Your task to perform on an android device: toggle improve location accuracy Image 0: 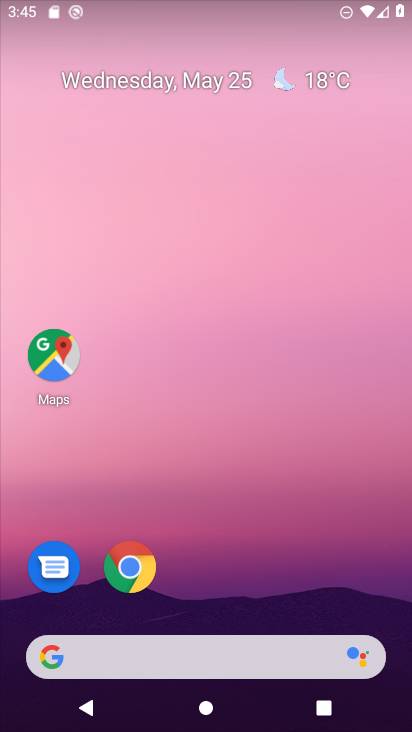
Step 0: drag from (386, 593) to (400, 240)
Your task to perform on an android device: toggle improve location accuracy Image 1: 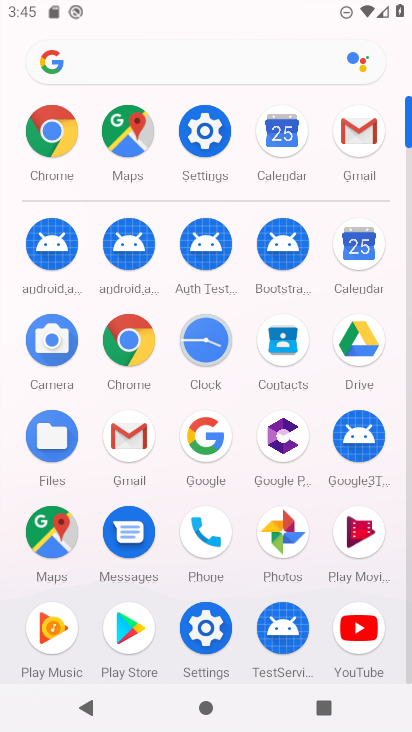
Step 1: click (202, 630)
Your task to perform on an android device: toggle improve location accuracy Image 2: 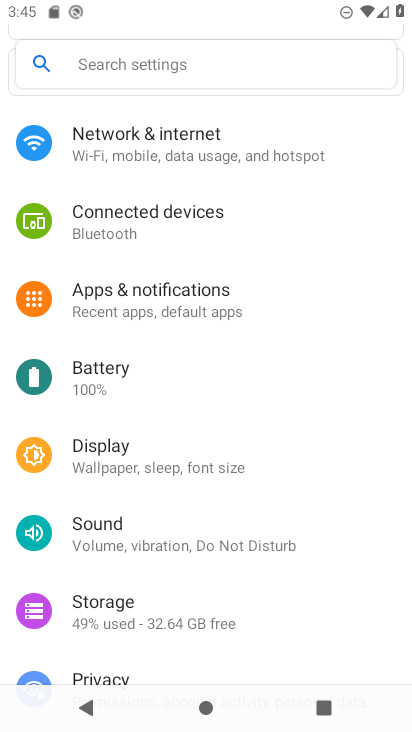
Step 2: drag from (333, 615) to (347, 504)
Your task to perform on an android device: toggle improve location accuracy Image 3: 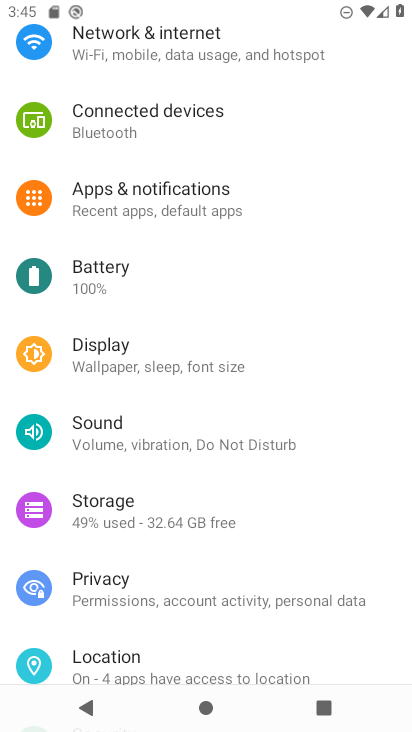
Step 3: drag from (352, 649) to (370, 524)
Your task to perform on an android device: toggle improve location accuracy Image 4: 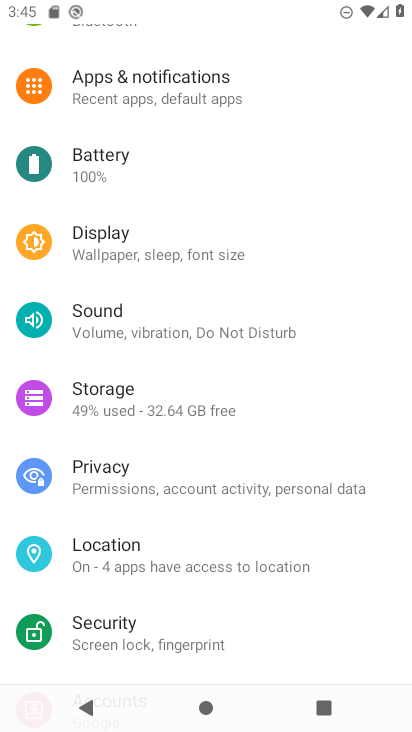
Step 4: drag from (351, 615) to (344, 542)
Your task to perform on an android device: toggle improve location accuracy Image 5: 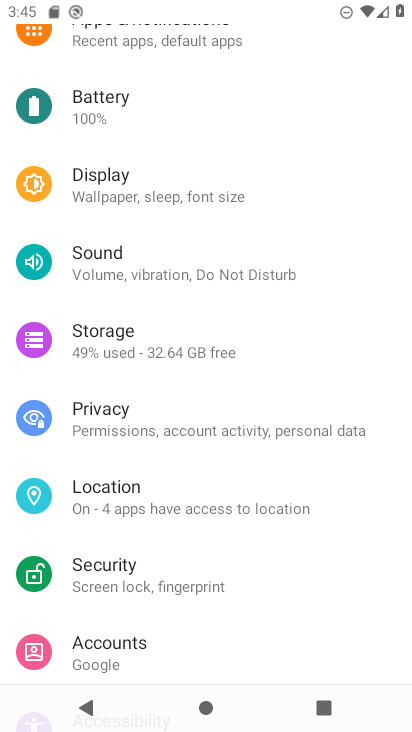
Step 5: drag from (351, 601) to (365, 502)
Your task to perform on an android device: toggle improve location accuracy Image 6: 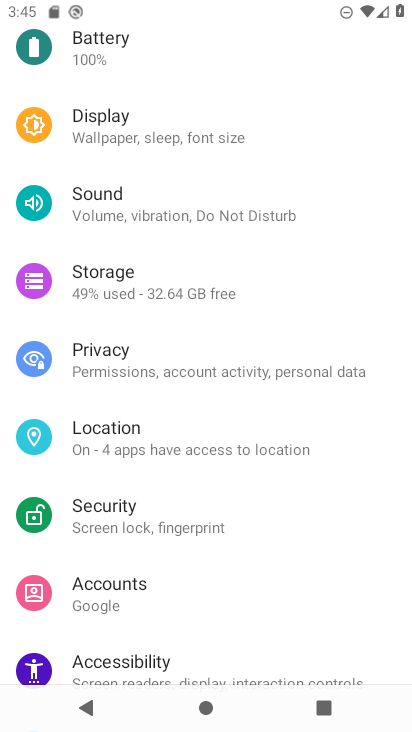
Step 6: drag from (363, 621) to (372, 498)
Your task to perform on an android device: toggle improve location accuracy Image 7: 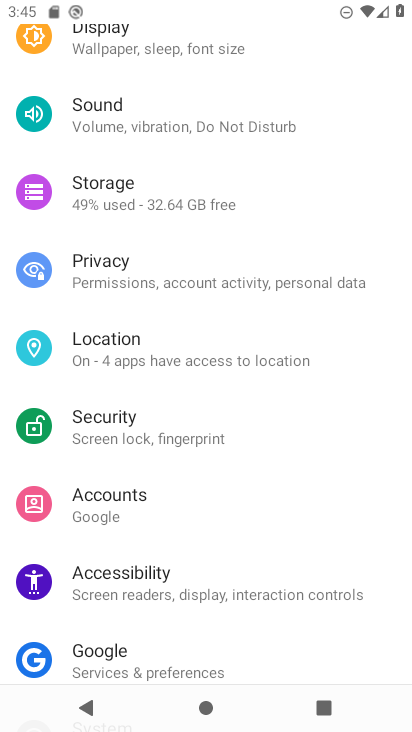
Step 7: drag from (360, 636) to (362, 518)
Your task to perform on an android device: toggle improve location accuracy Image 8: 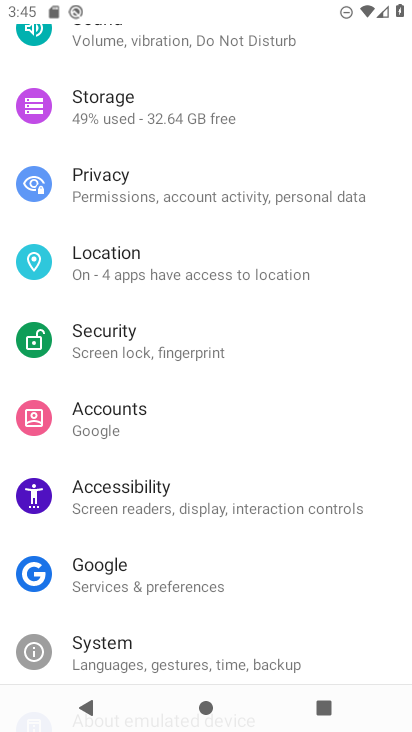
Step 8: drag from (344, 602) to (347, 484)
Your task to perform on an android device: toggle improve location accuracy Image 9: 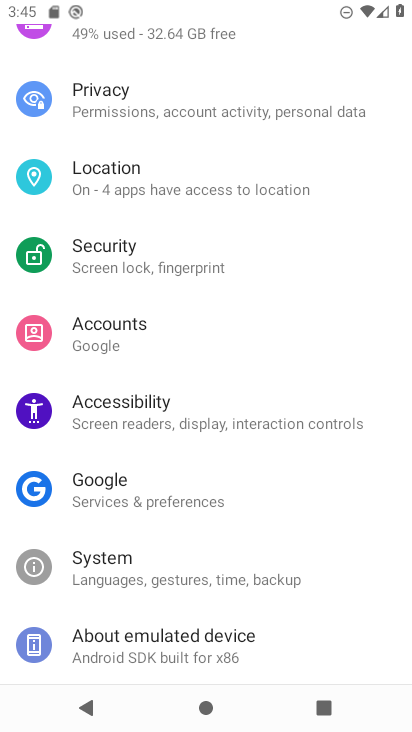
Step 9: drag from (349, 353) to (350, 482)
Your task to perform on an android device: toggle improve location accuracy Image 10: 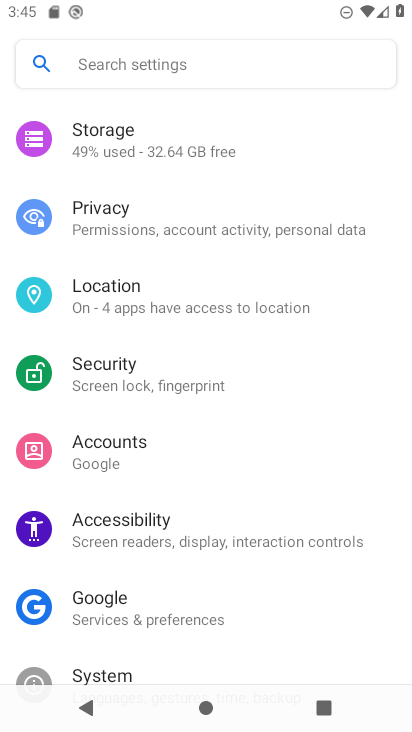
Step 10: drag from (346, 360) to (363, 495)
Your task to perform on an android device: toggle improve location accuracy Image 11: 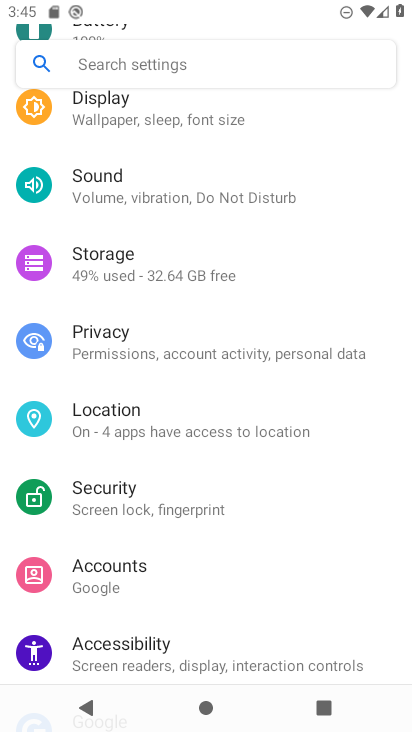
Step 11: click (324, 414)
Your task to perform on an android device: toggle improve location accuracy Image 12: 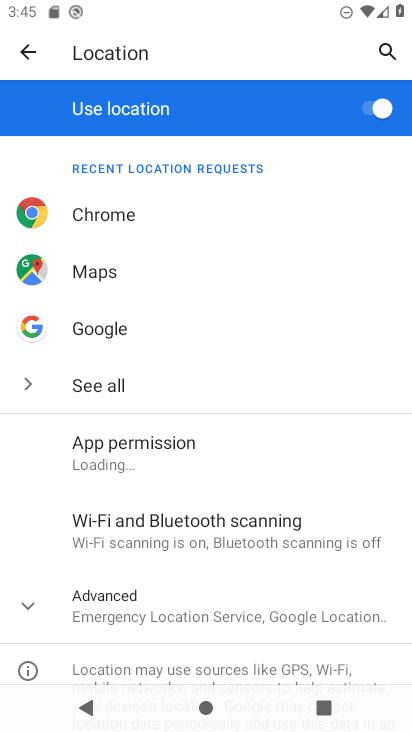
Step 12: click (259, 614)
Your task to perform on an android device: toggle improve location accuracy Image 13: 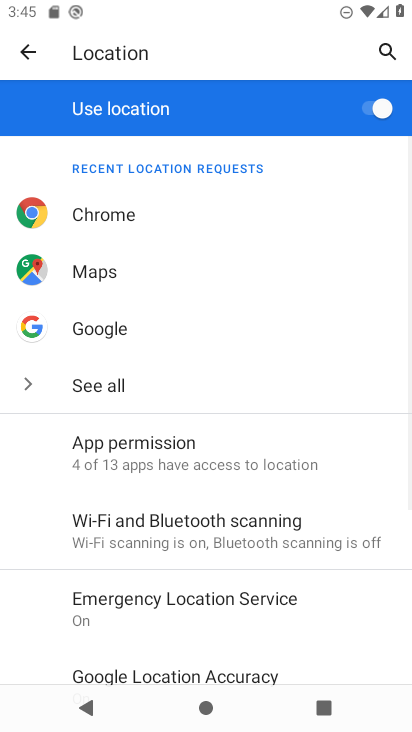
Step 13: drag from (263, 629) to (257, 568)
Your task to perform on an android device: toggle improve location accuracy Image 14: 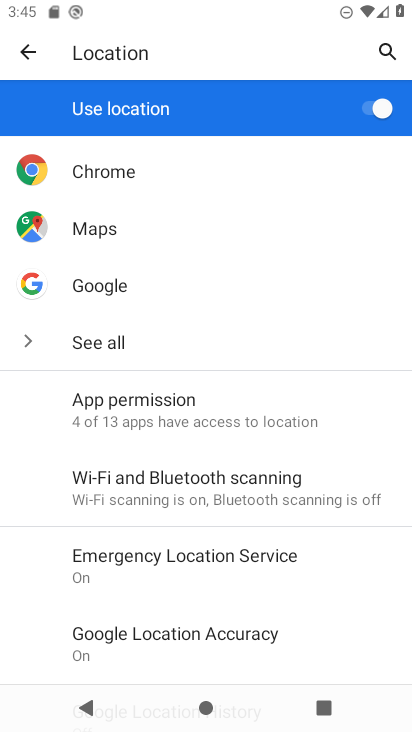
Step 14: drag from (273, 623) to (265, 519)
Your task to perform on an android device: toggle improve location accuracy Image 15: 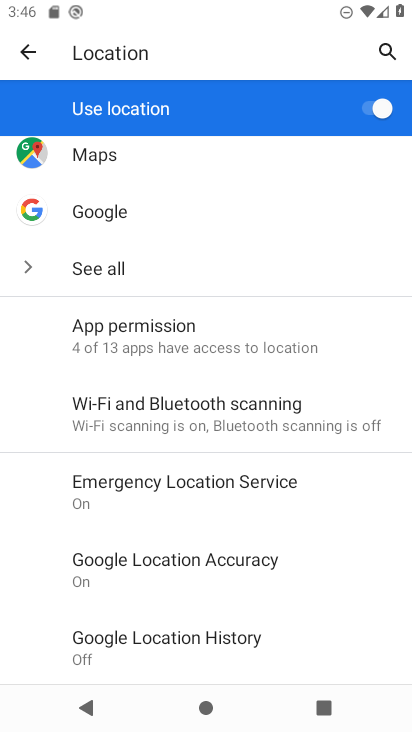
Step 15: drag from (302, 627) to (289, 534)
Your task to perform on an android device: toggle improve location accuracy Image 16: 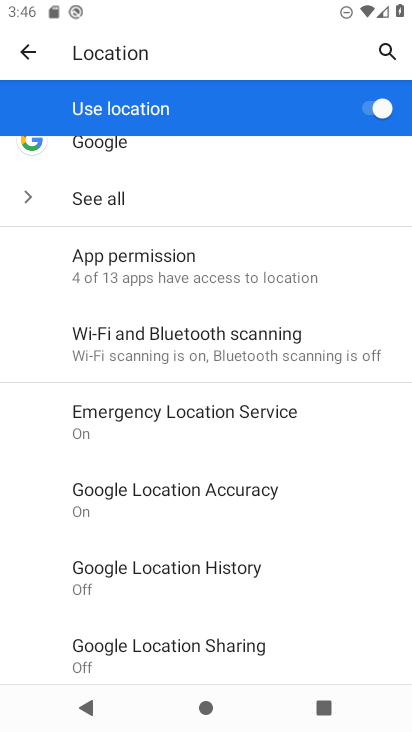
Step 16: drag from (343, 607) to (340, 507)
Your task to perform on an android device: toggle improve location accuracy Image 17: 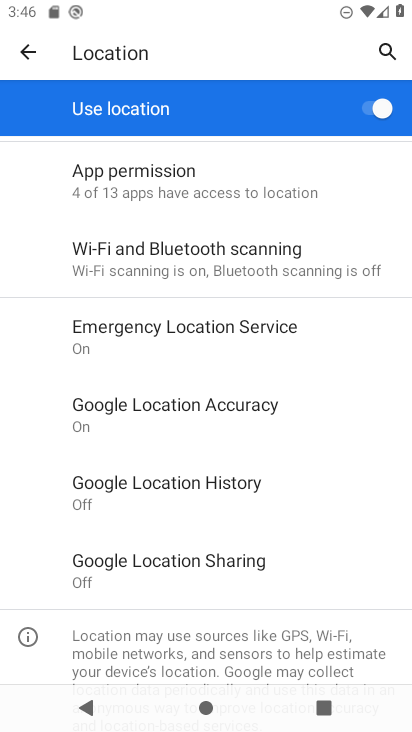
Step 17: drag from (334, 520) to (339, 429)
Your task to perform on an android device: toggle improve location accuracy Image 18: 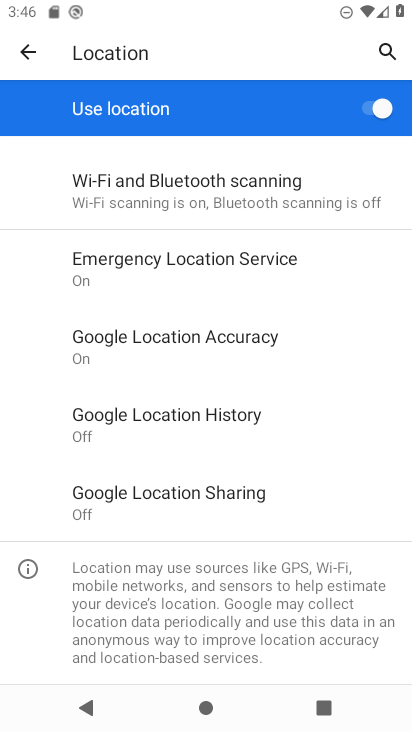
Step 18: click (249, 360)
Your task to perform on an android device: toggle improve location accuracy Image 19: 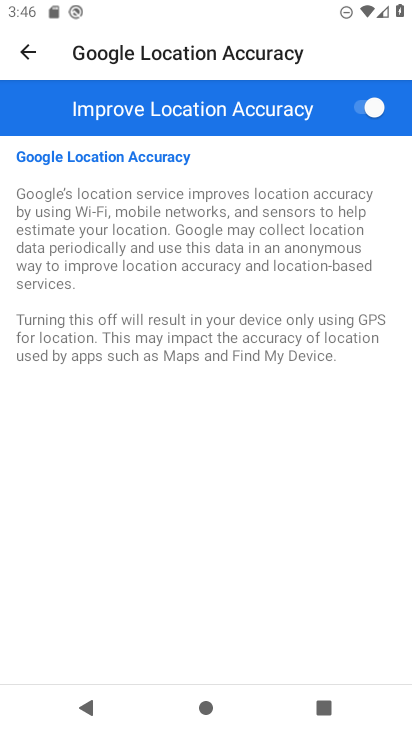
Step 19: click (381, 107)
Your task to perform on an android device: toggle improve location accuracy Image 20: 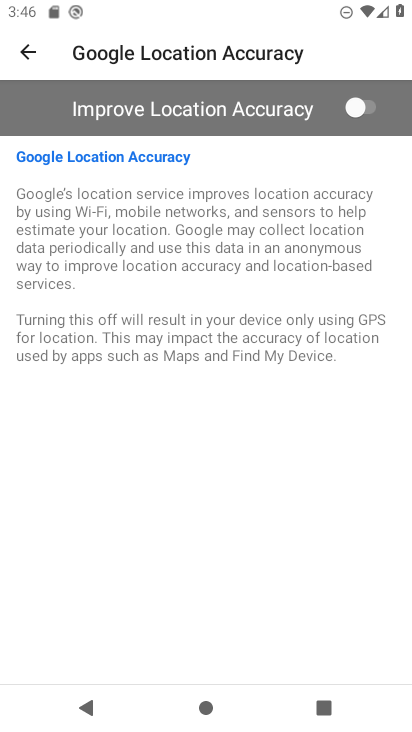
Step 20: task complete